Your task to perform on an android device: turn on improve location accuracy Image 0: 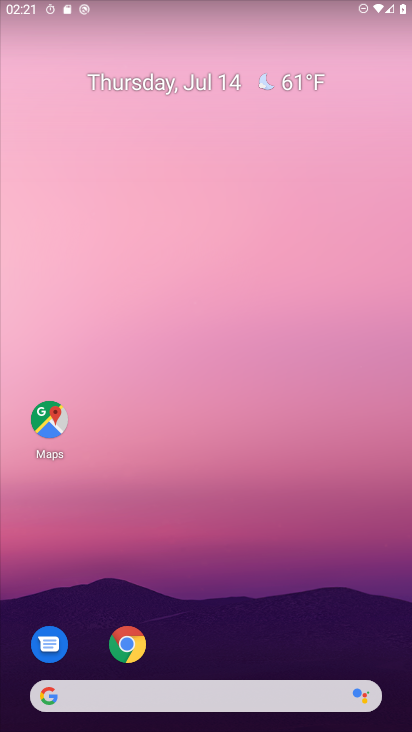
Step 0: drag from (298, 341) to (298, 56)
Your task to perform on an android device: turn on improve location accuracy Image 1: 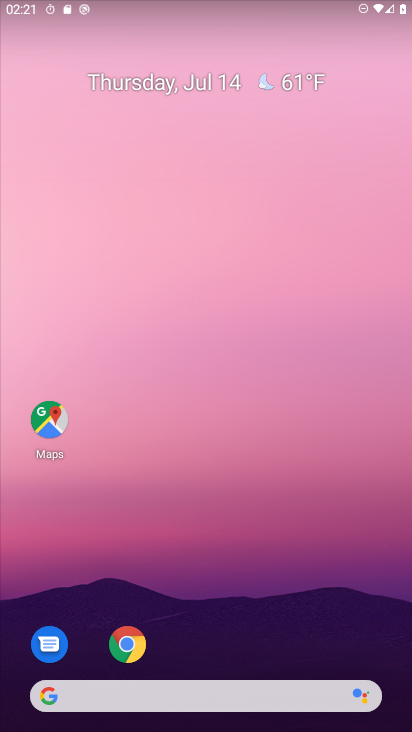
Step 1: drag from (321, 506) to (303, 102)
Your task to perform on an android device: turn on improve location accuracy Image 2: 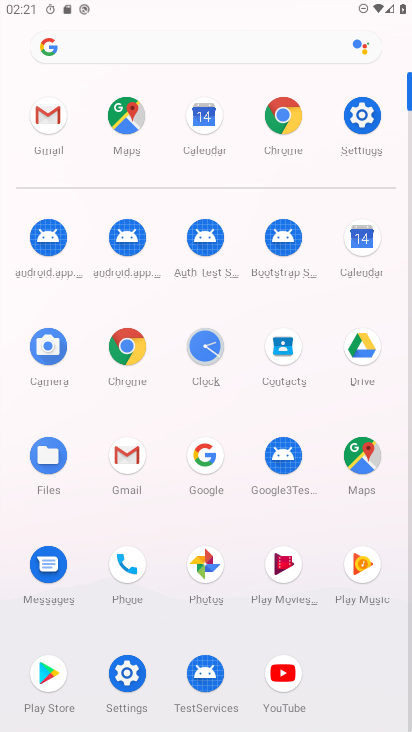
Step 2: click (365, 116)
Your task to perform on an android device: turn on improve location accuracy Image 3: 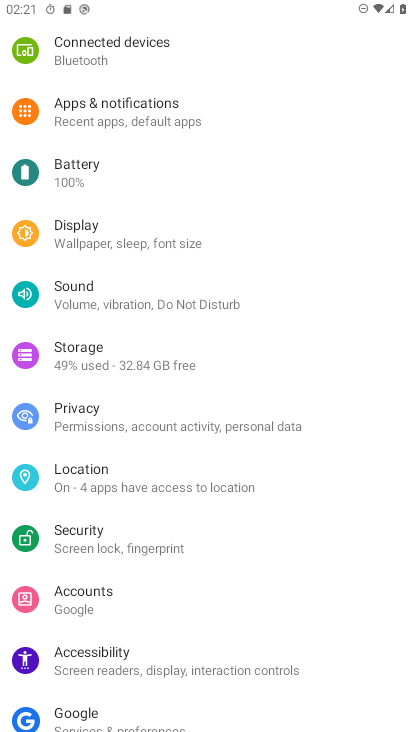
Step 3: click (148, 486)
Your task to perform on an android device: turn on improve location accuracy Image 4: 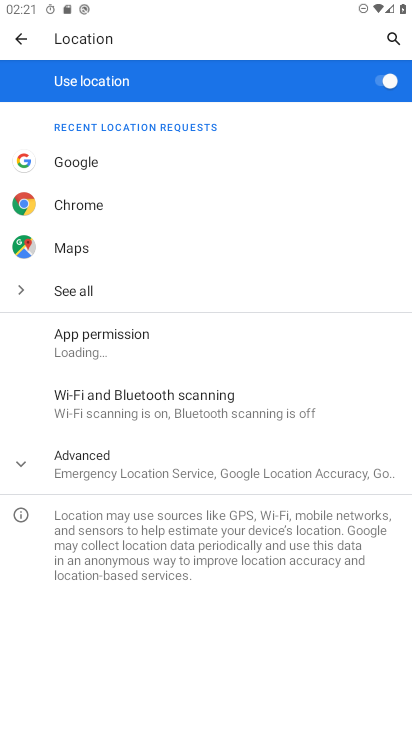
Step 4: click (124, 469)
Your task to perform on an android device: turn on improve location accuracy Image 5: 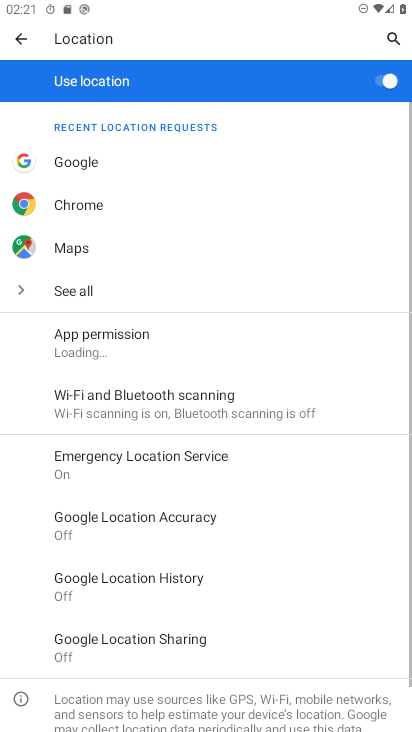
Step 5: drag from (260, 562) to (301, 151)
Your task to perform on an android device: turn on improve location accuracy Image 6: 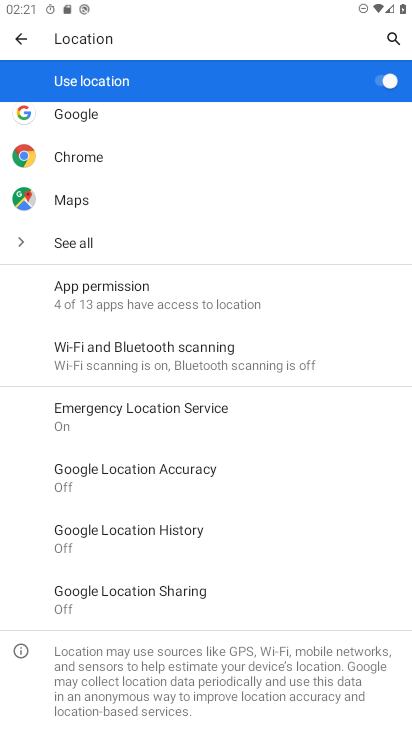
Step 6: click (206, 482)
Your task to perform on an android device: turn on improve location accuracy Image 7: 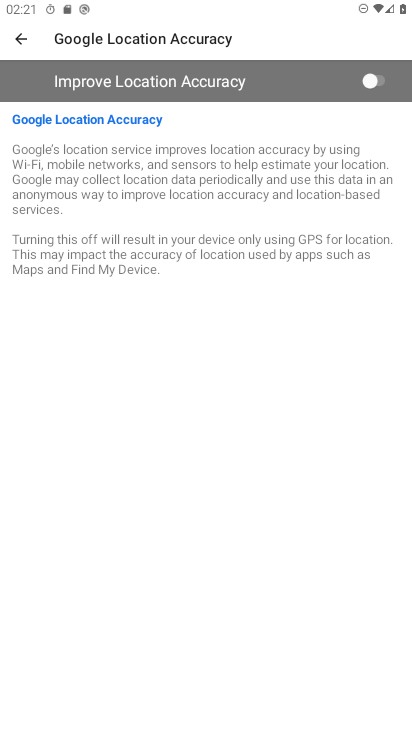
Step 7: click (372, 82)
Your task to perform on an android device: turn on improve location accuracy Image 8: 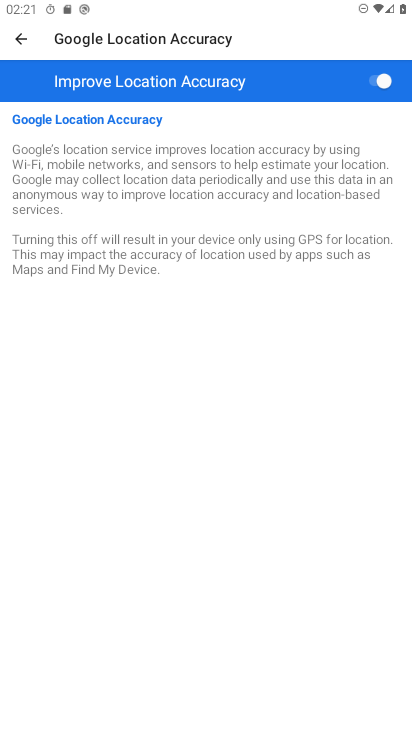
Step 8: task complete